Your task to perform on an android device: Go to Reddit.com Image 0: 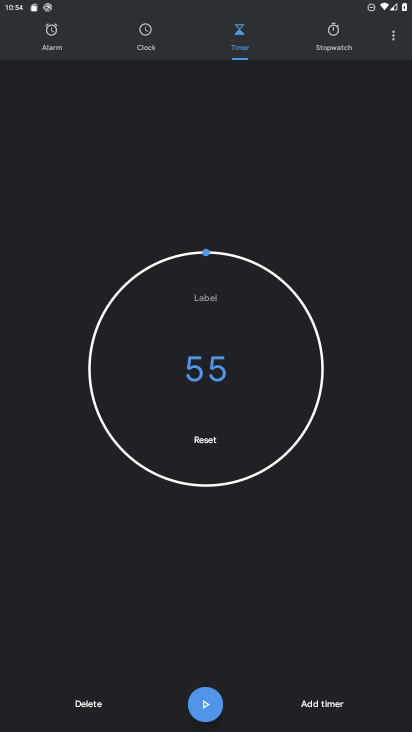
Step 0: press home button
Your task to perform on an android device: Go to Reddit.com Image 1: 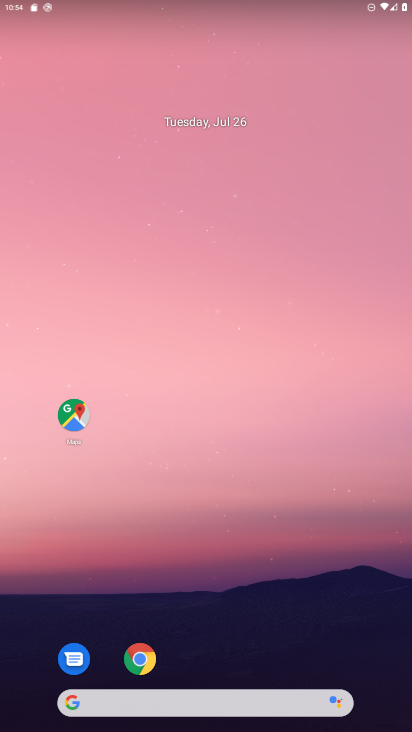
Step 1: click (138, 663)
Your task to perform on an android device: Go to Reddit.com Image 2: 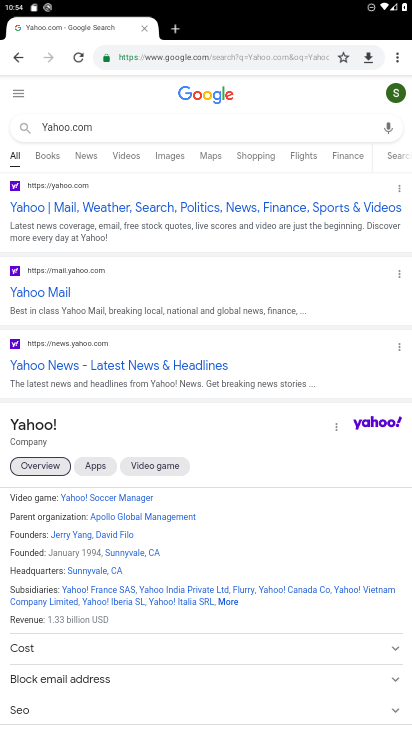
Step 2: click (314, 58)
Your task to perform on an android device: Go to Reddit.com Image 3: 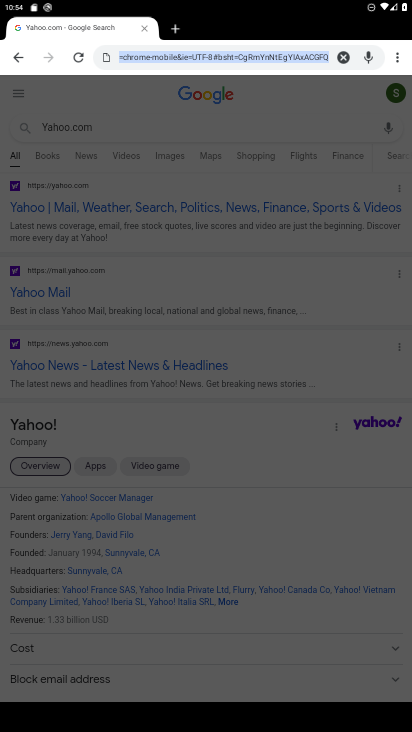
Step 3: click (344, 54)
Your task to perform on an android device: Go to Reddit.com Image 4: 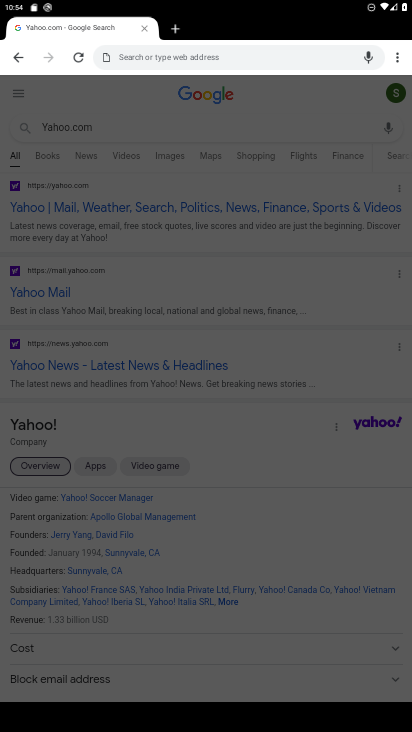
Step 4: type "Reddit.com"
Your task to perform on an android device: Go to Reddit.com Image 5: 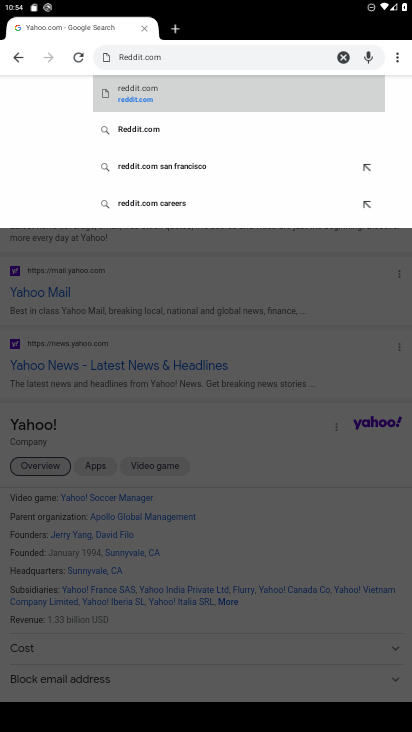
Step 5: click (124, 127)
Your task to perform on an android device: Go to Reddit.com Image 6: 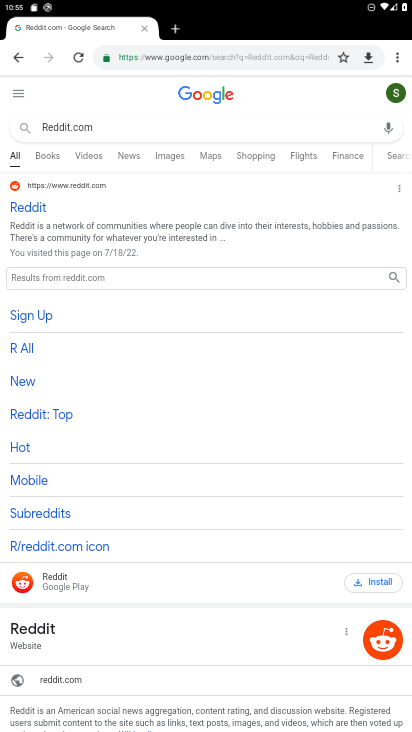
Step 6: task complete